Your task to perform on an android device: Check the weather Image 0: 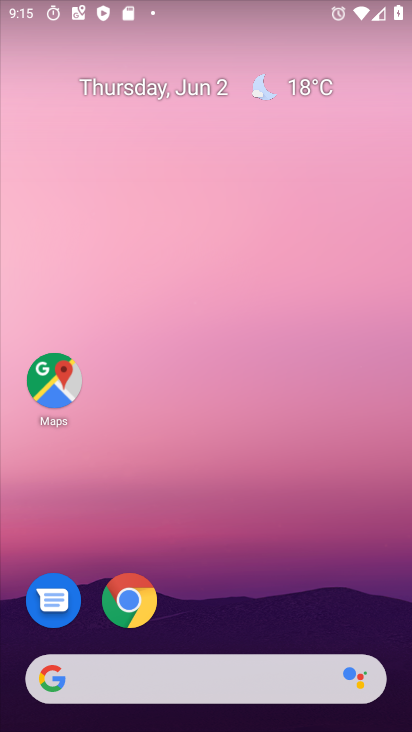
Step 0: click (303, 89)
Your task to perform on an android device: Check the weather Image 1: 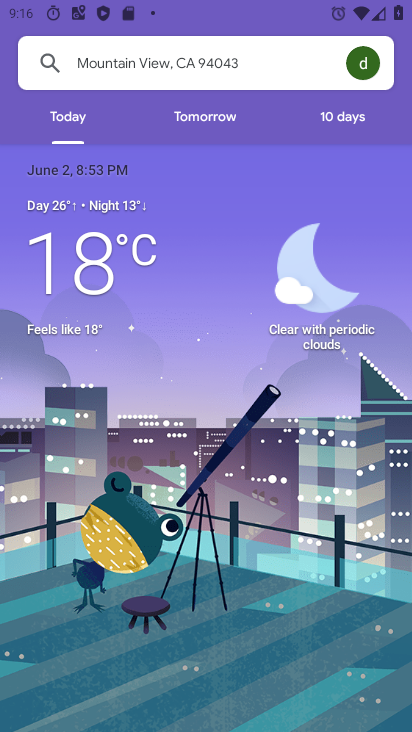
Step 1: task complete